Your task to perform on an android device: turn on wifi Image 0: 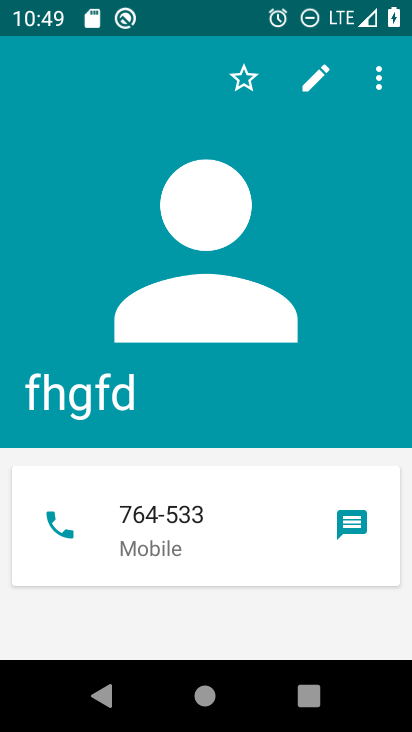
Step 0: press home button
Your task to perform on an android device: turn on wifi Image 1: 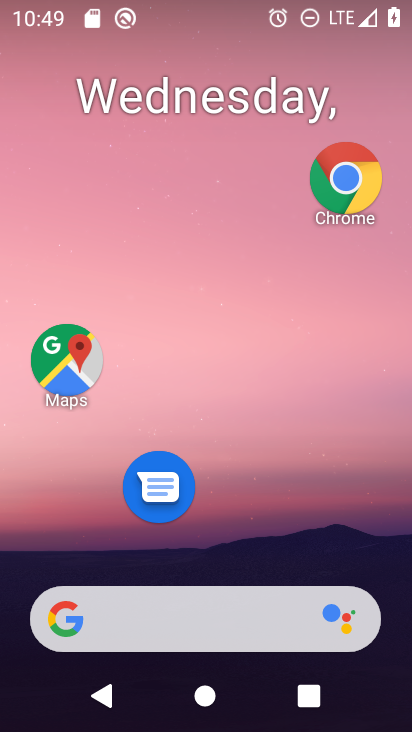
Step 1: drag from (270, 585) to (338, 35)
Your task to perform on an android device: turn on wifi Image 2: 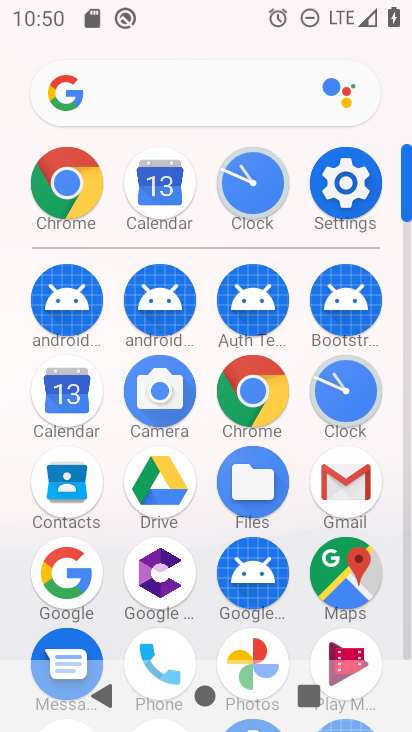
Step 2: click (344, 199)
Your task to perform on an android device: turn on wifi Image 3: 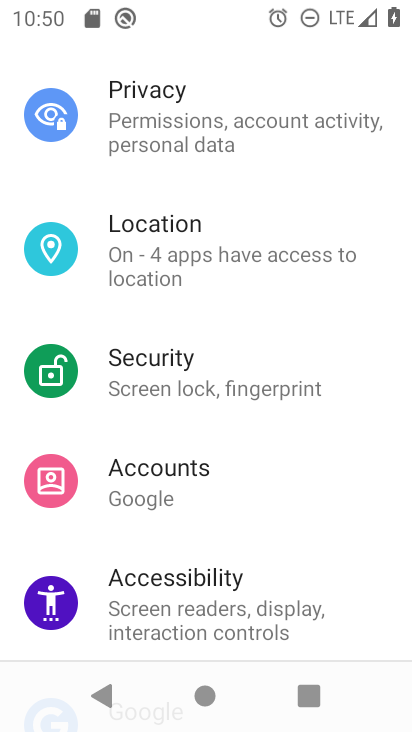
Step 3: drag from (206, 237) to (411, 369)
Your task to perform on an android device: turn on wifi Image 4: 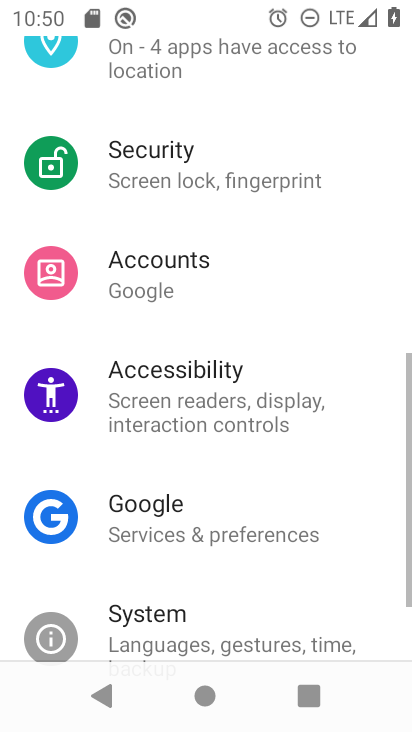
Step 4: drag from (220, 369) to (218, 702)
Your task to perform on an android device: turn on wifi Image 5: 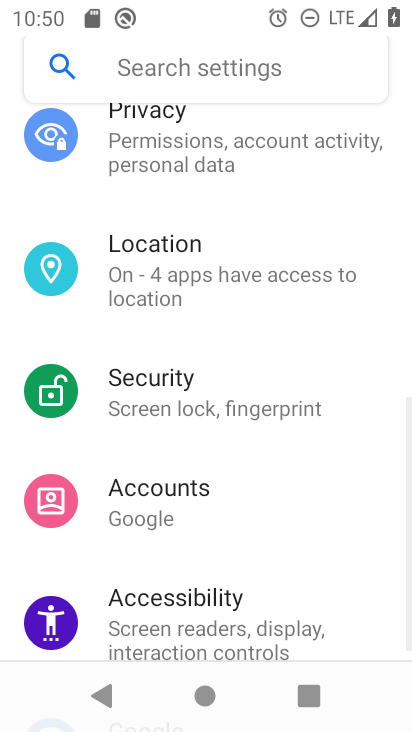
Step 5: drag from (331, 230) to (287, 722)
Your task to perform on an android device: turn on wifi Image 6: 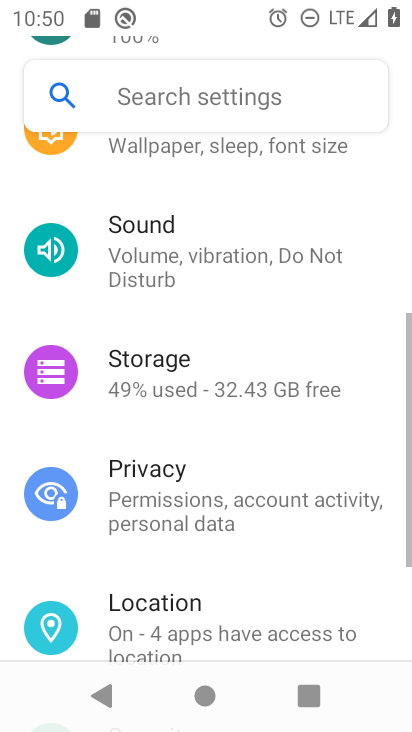
Step 6: drag from (310, 279) to (262, 725)
Your task to perform on an android device: turn on wifi Image 7: 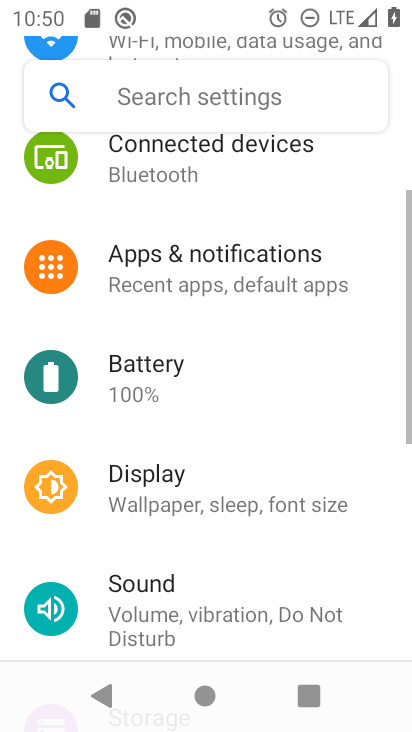
Step 7: drag from (248, 312) to (236, 656)
Your task to perform on an android device: turn on wifi Image 8: 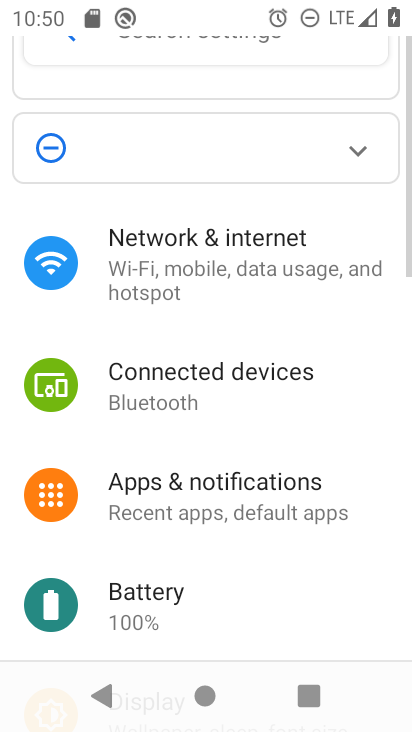
Step 8: drag from (247, 354) to (290, 688)
Your task to perform on an android device: turn on wifi Image 9: 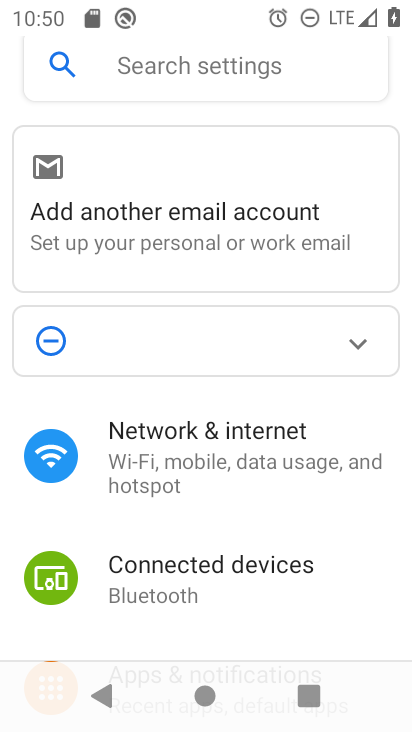
Step 9: click (265, 476)
Your task to perform on an android device: turn on wifi Image 10: 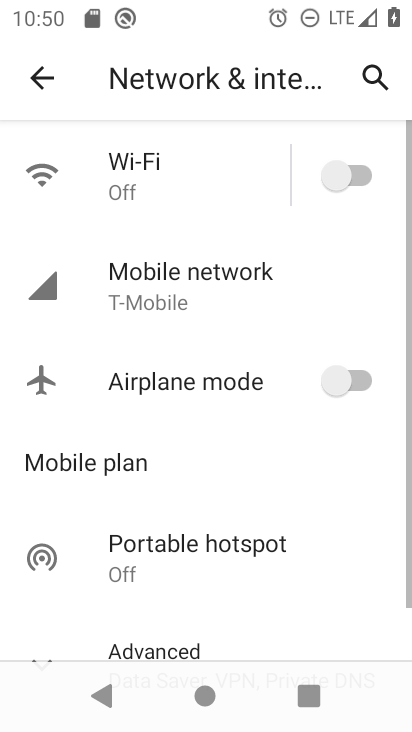
Step 10: click (365, 185)
Your task to perform on an android device: turn on wifi Image 11: 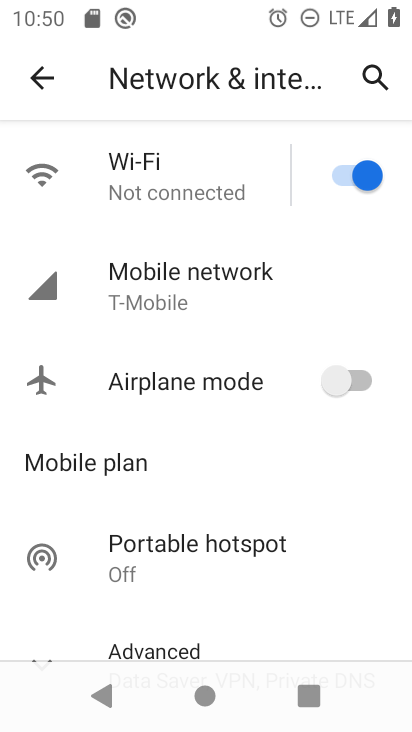
Step 11: task complete